Your task to perform on an android device: Open CNN.com Image 0: 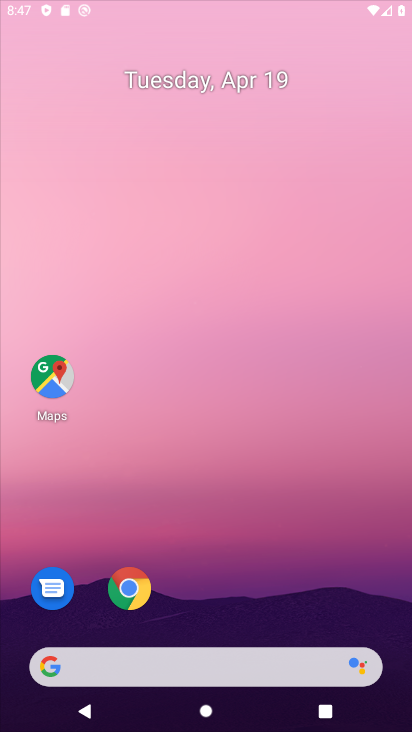
Step 0: click (299, 28)
Your task to perform on an android device: Open CNN.com Image 1: 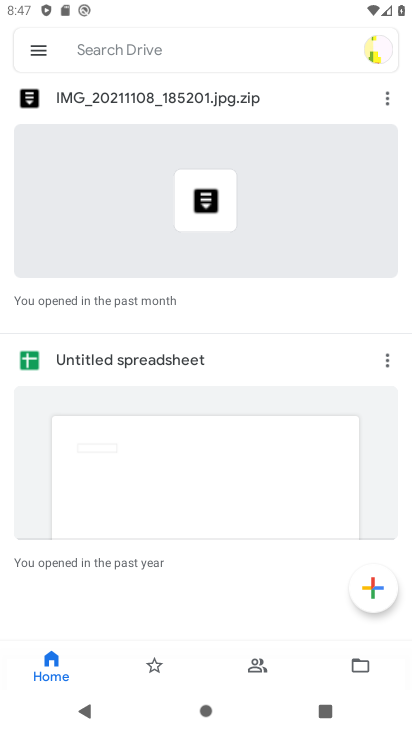
Step 1: press home button
Your task to perform on an android device: Open CNN.com Image 2: 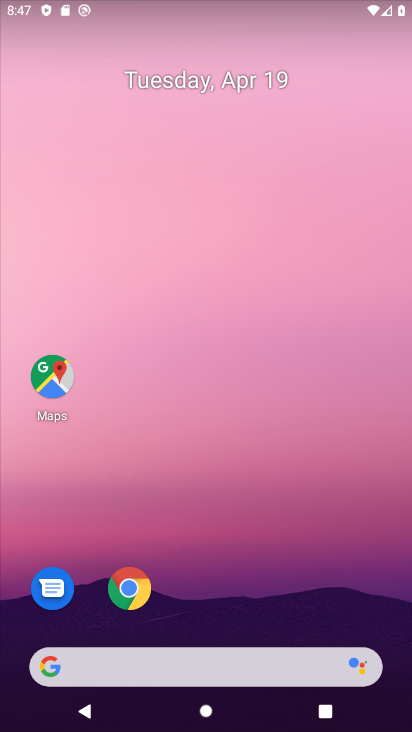
Step 2: click (126, 584)
Your task to perform on an android device: Open CNN.com Image 3: 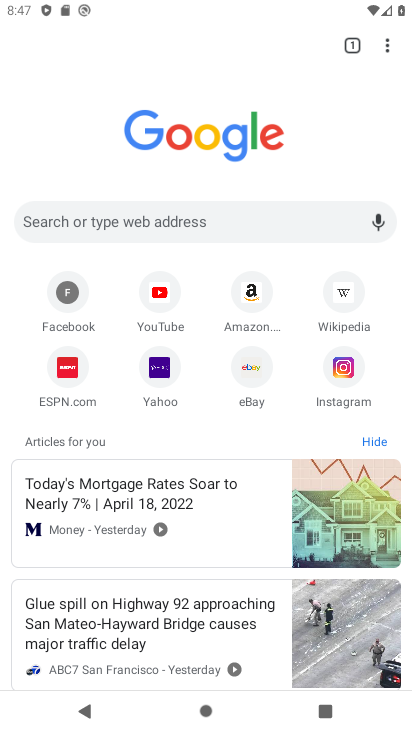
Step 3: click (139, 216)
Your task to perform on an android device: Open CNN.com Image 4: 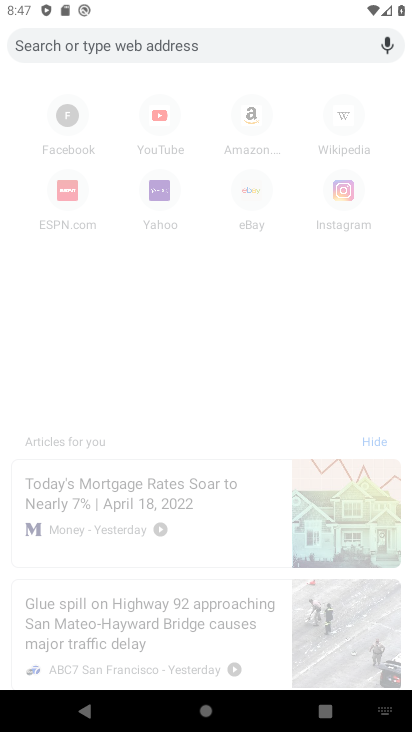
Step 4: type "cnn.com"
Your task to perform on an android device: Open CNN.com Image 5: 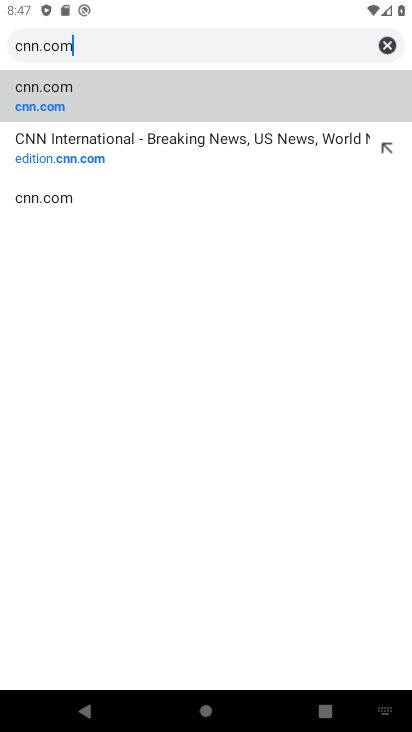
Step 5: click (66, 96)
Your task to perform on an android device: Open CNN.com Image 6: 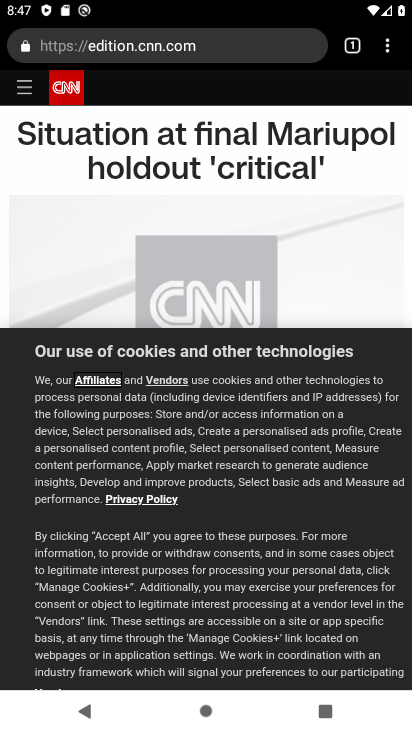
Step 6: drag from (196, 585) to (270, 234)
Your task to perform on an android device: Open CNN.com Image 7: 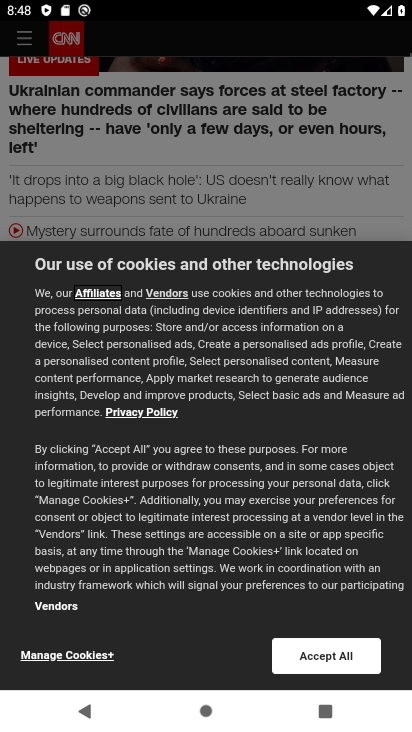
Step 7: click (329, 655)
Your task to perform on an android device: Open CNN.com Image 8: 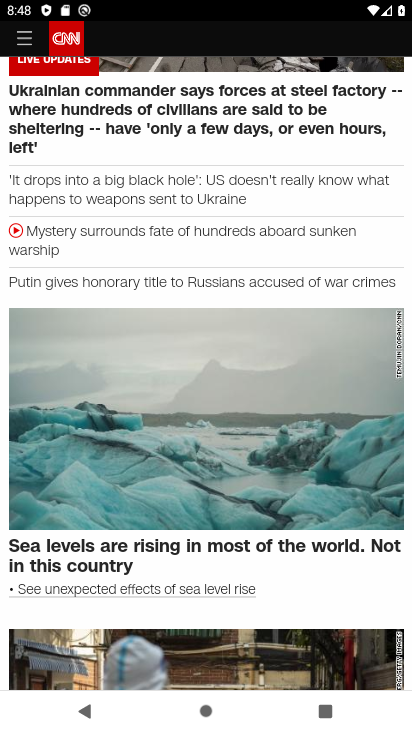
Step 8: task complete